Your task to perform on an android device: Search for "dell xps" on walmart.com, select the first entry, and add it to the cart. Image 0: 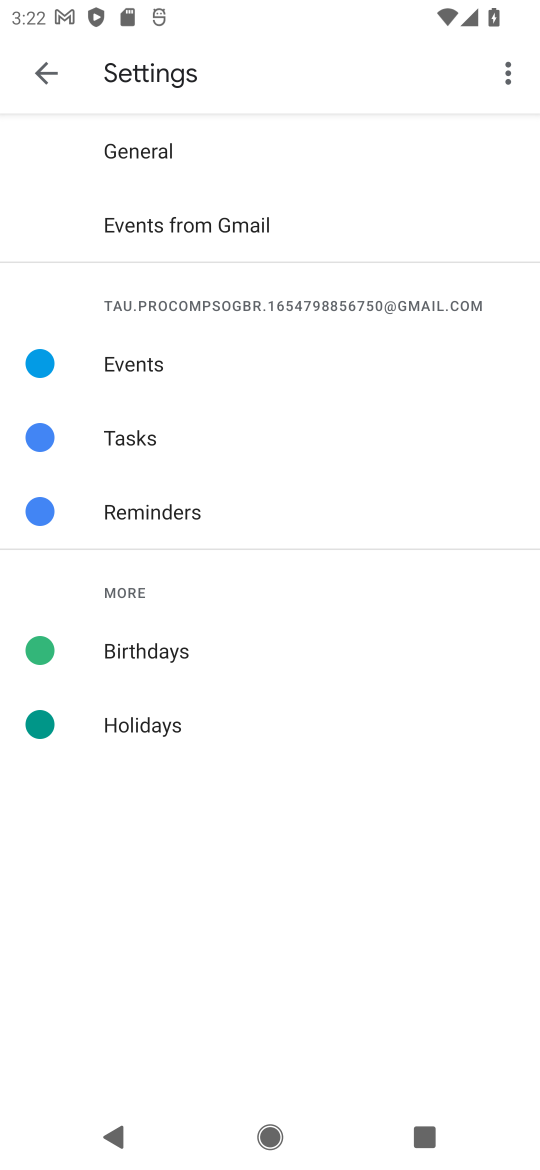
Step 0: press home button
Your task to perform on an android device: Search for "dell xps" on walmart.com, select the first entry, and add it to the cart. Image 1: 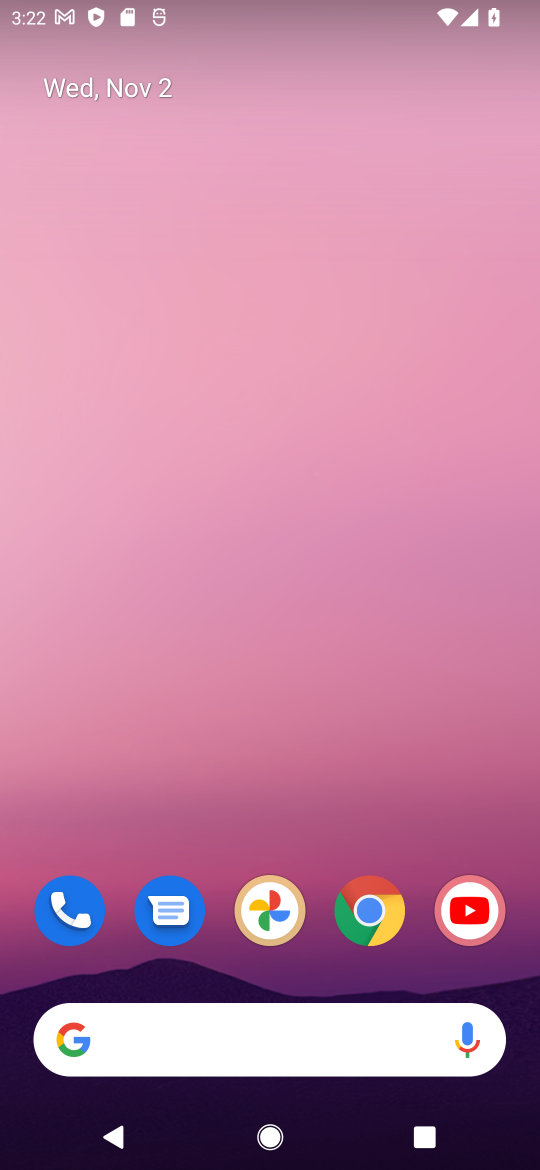
Step 1: click (379, 922)
Your task to perform on an android device: Search for "dell xps" on walmart.com, select the first entry, and add it to the cart. Image 2: 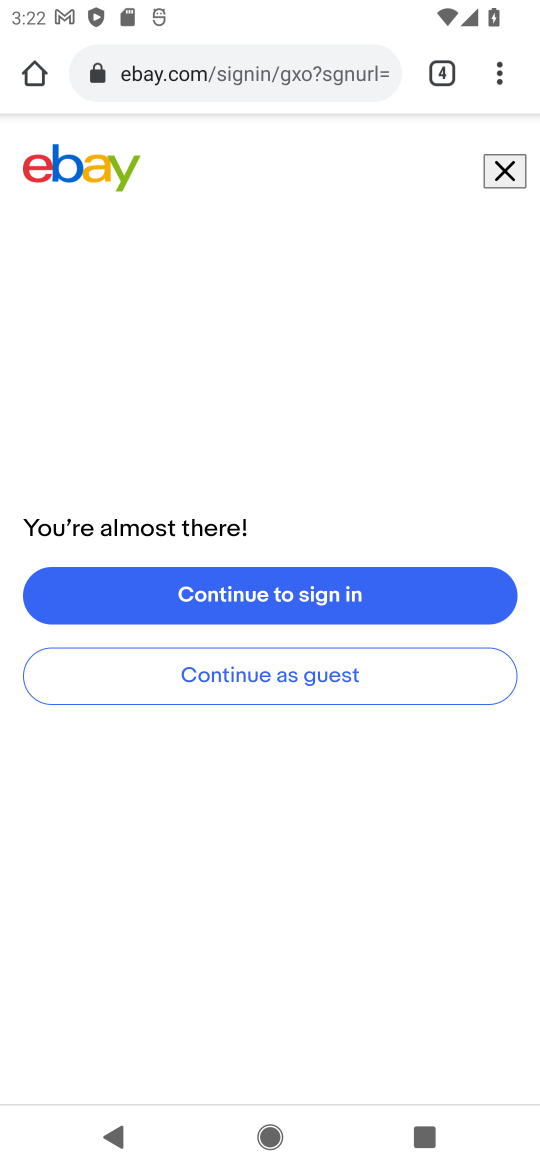
Step 2: click (436, 70)
Your task to perform on an android device: Search for "dell xps" on walmart.com, select the first entry, and add it to the cart. Image 3: 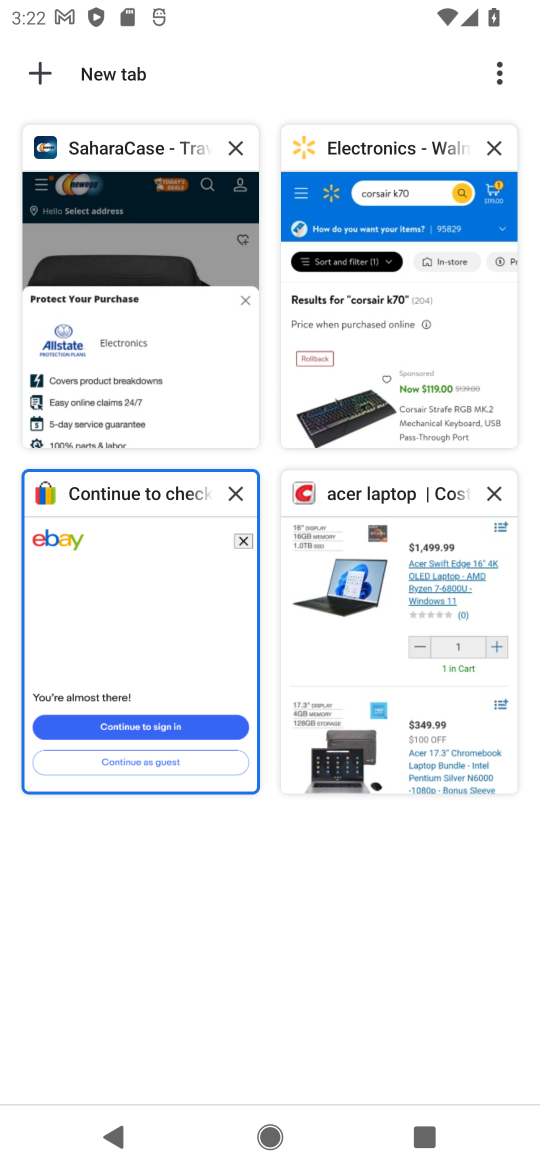
Step 3: click (437, 253)
Your task to perform on an android device: Search for "dell xps" on walmart.com, select the first entry, and add it to the cart. Image 4: 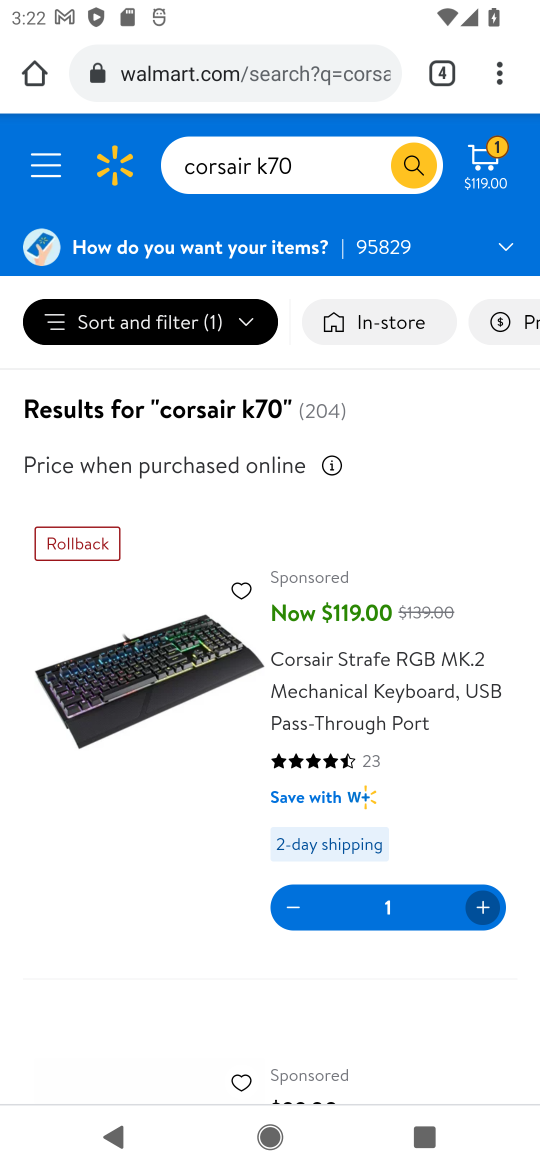
Step 4: click (303, 173)
Your task to perform on an android device: Search for "dell xps" on walmart.com, select the first entry, and add it to the cart. Image 5: 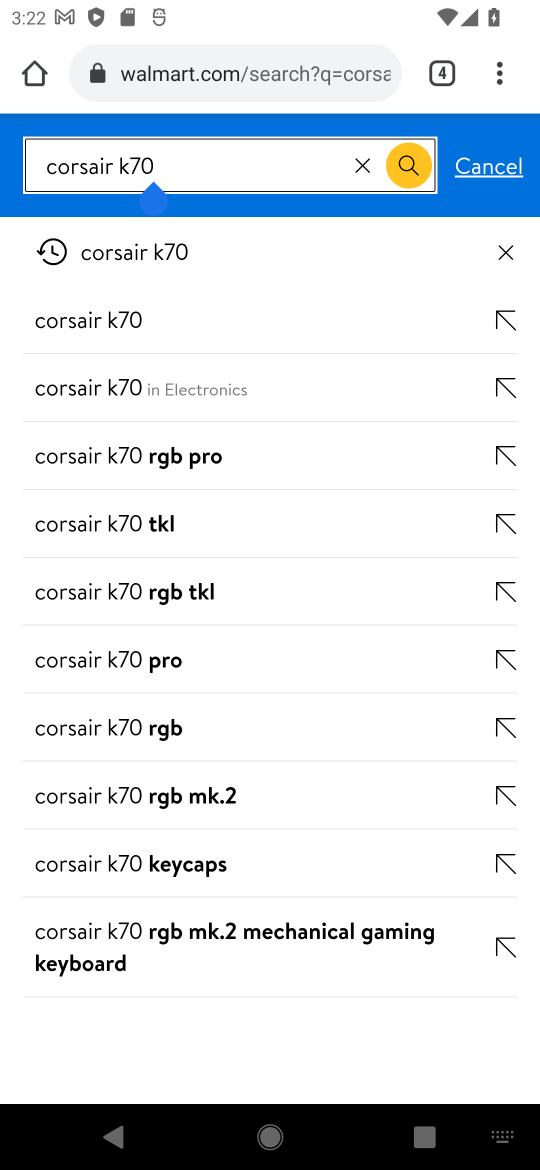
Step 5: click (363, 162)
Your task to perform on an android device: Search for "dell xps" on walmart.com, select the first entry, and add it to the cart. Image 6: 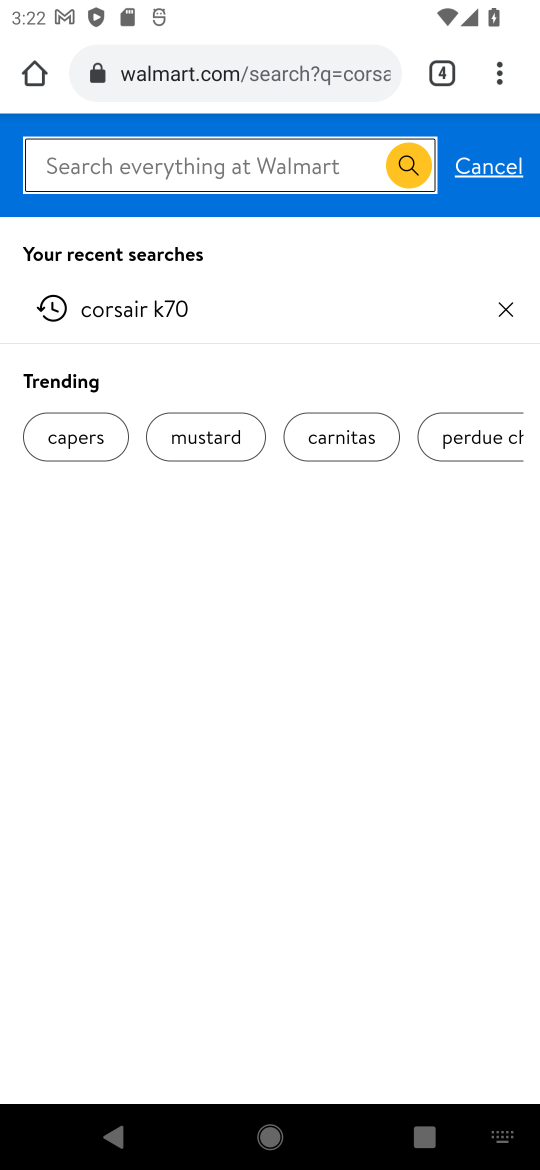
Step 6: type "dell xps"
Your task to perform on an android device: Search for "dell xps" on walmart.com, select the first entry, and add it to the cart. Image 7: 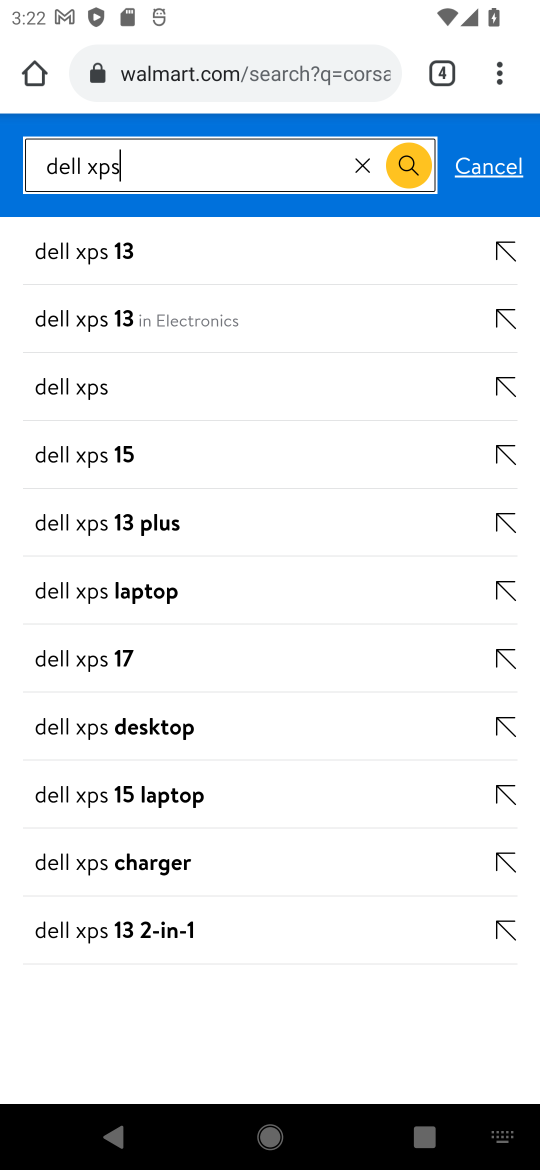
Step 7: click (134, 325)
Your task to perform on an android device: Search for "dell xps" on walmart.com, select the first entry, and add it to the cart. Image 8: 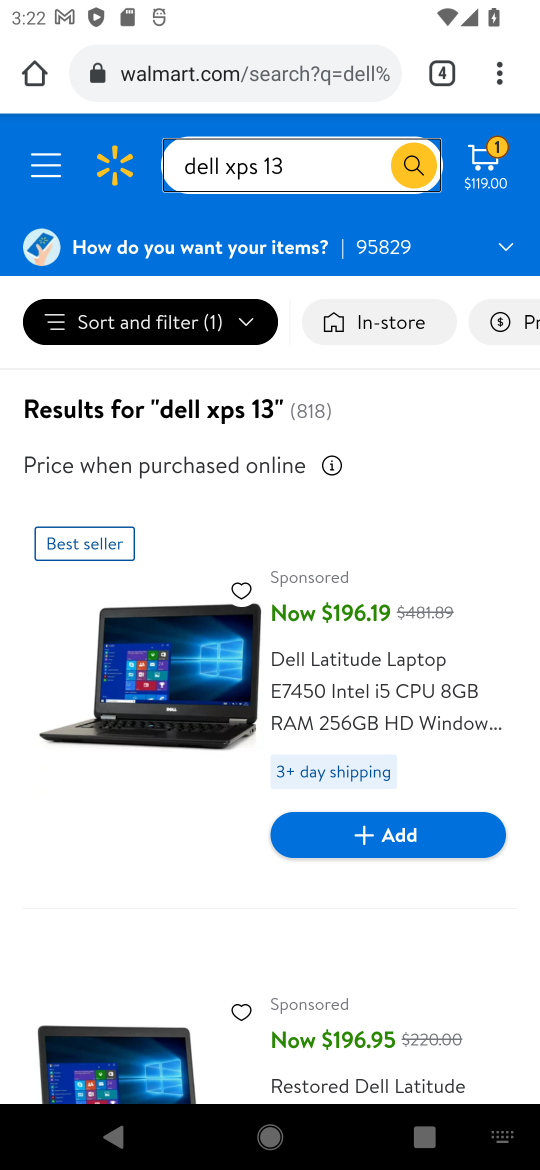
Step 8: click (397, 838)
Your task to perform on an android device: Search for "dell xps" on walmart.com, select the first entry, and add it to the cart. Image 9: 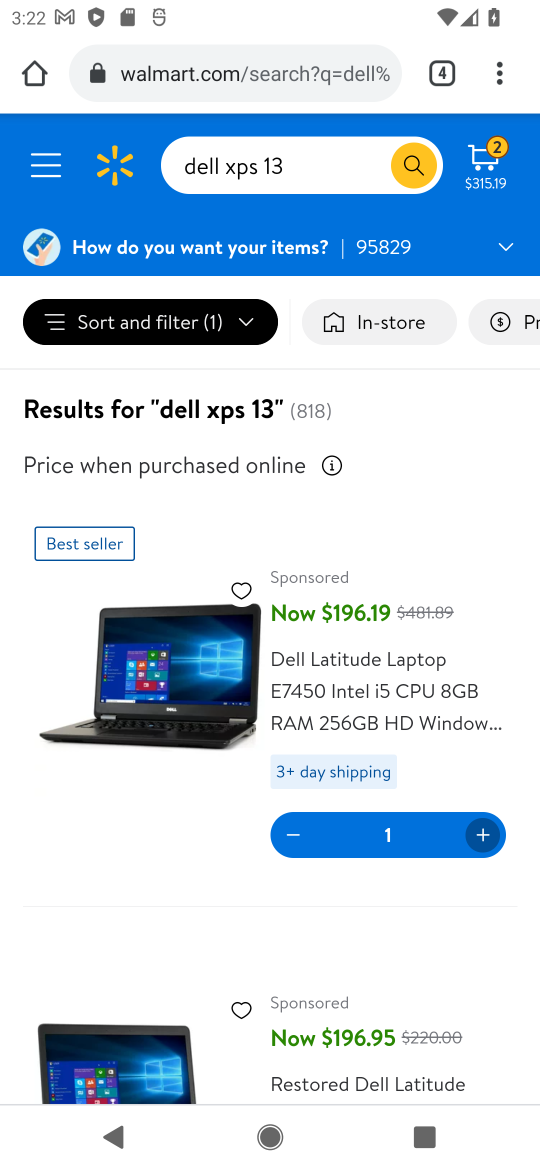
Step 9: task complete